Your task to perform on an android device: set default search engine in the chrome app Image 0: 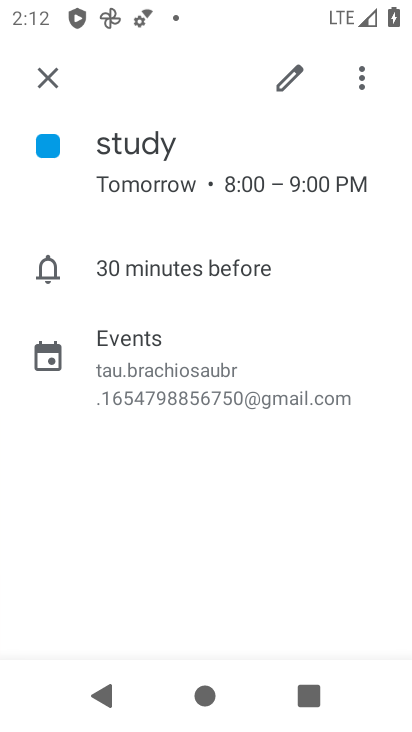
Step 0: press home button
Your task to perform on an android device: set default search engine in the chrome app Image 1: 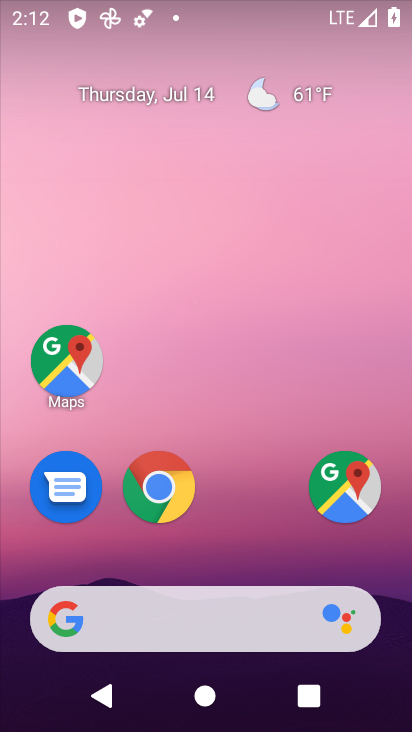
Step 1: drag from (268, 561) to (314, 139)
Your task to perform on an android device: set default search engine in the chrome app Image 2: 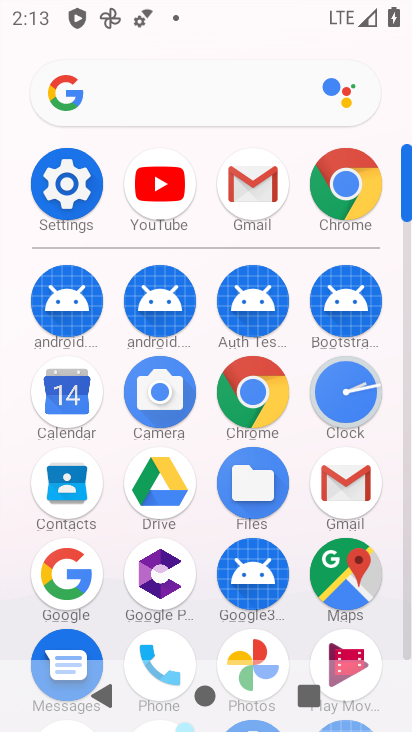
Step 2: click (344, 195)
Your task to perform on an android device: set default search engine in the chrome app Image 3: 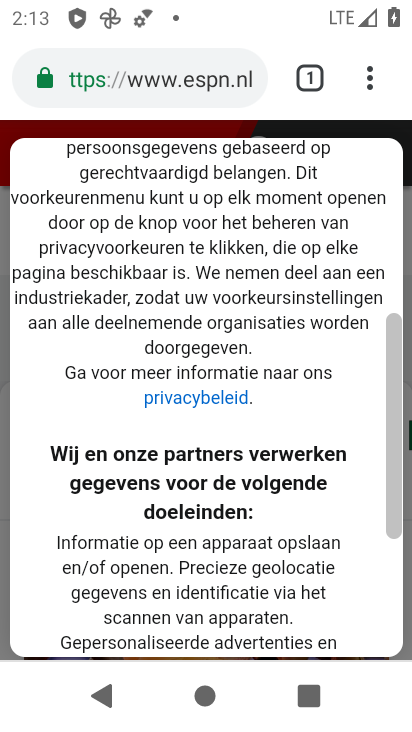
Step 3: click (370, 85)
Your task to perform on an android device: set default search engine in the chrome app Image 4: 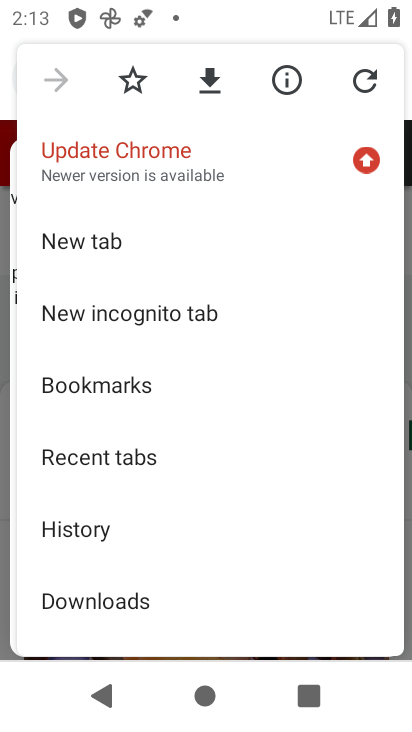
Step 4: drag from (287, 492) to (300, 434)
Your task to perform on an android device: set default search engine in the chrome app Image 5: 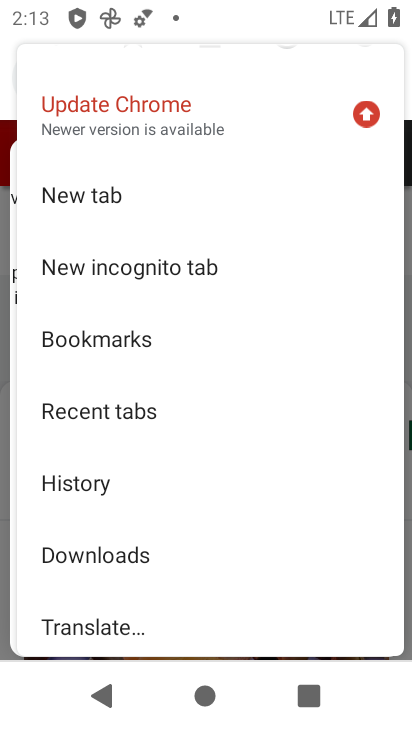
Step 5: drag from (311, 521) to (303, 443)
Your task to perform on an android device: set default search engine in the chrome app Image 6: 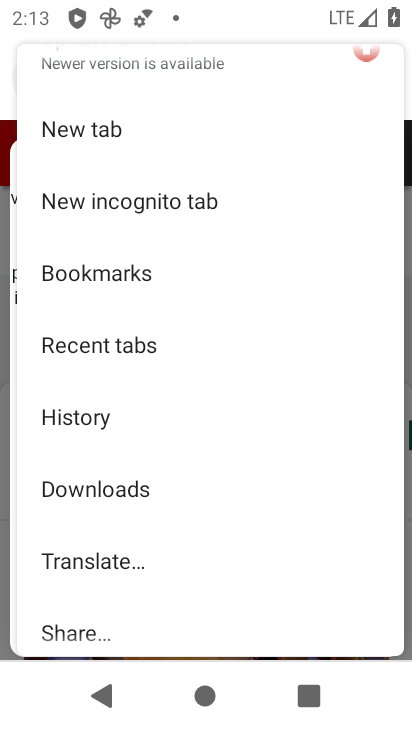
Step 6: drag from (298, 527) to (296, 446)
Your task to perform on an android device: set default search engine in the chrome app Image 7: 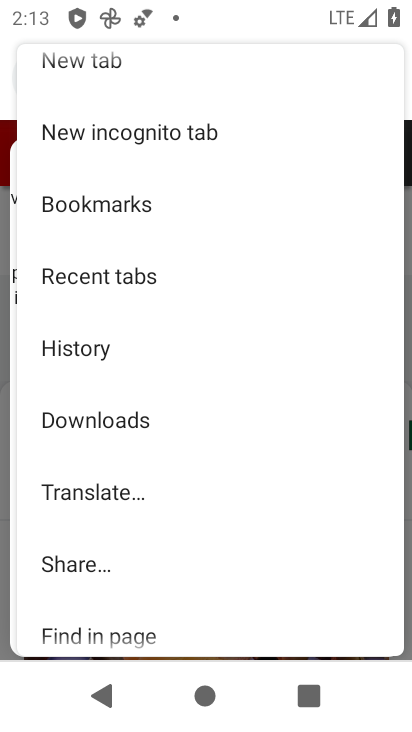
Step 7: drag from (337, 520) to (334, 441)
Your task to perform on an android device: set default search engine in the chrome app Image 8: 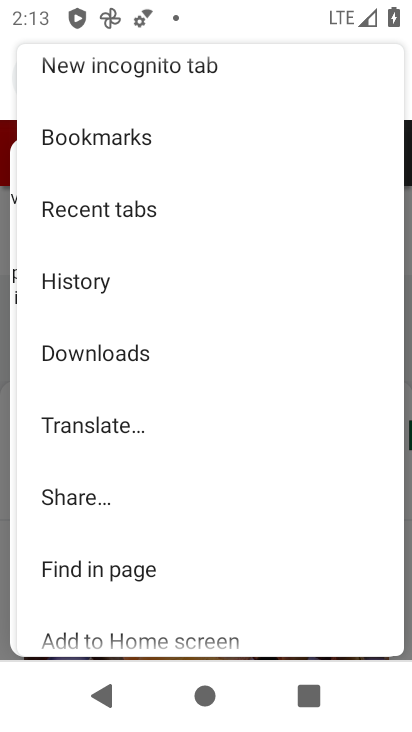
Step 8: drag from (326, 530) to (324, 456)
Your task to perform on an android device: set default search engine in the chrome app Image 9: 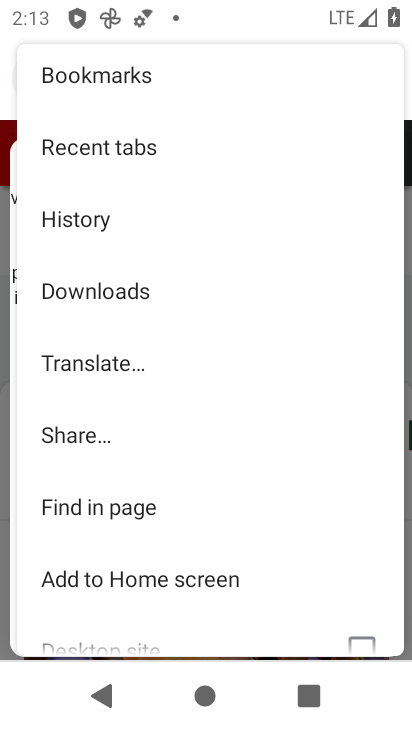
Step 9: drag from (325, 524) to (324, 452)
Your task to perform on an android device: set default search engine in the chrome app Image 10: 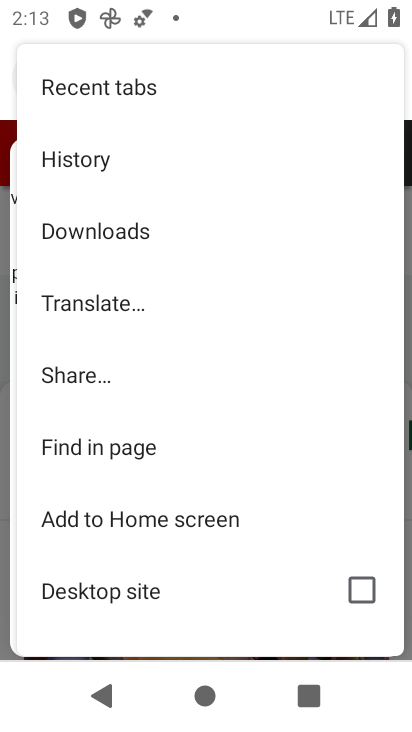
Step 10: drag from (306, 518) to (306, 441)
Your task to perform on an android device: set default search engine in the chrome app Image 11: 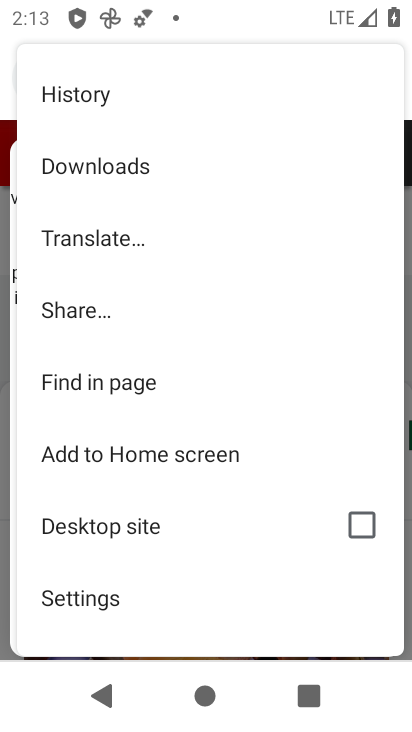
Step 11: drag from (301, 516) to (304, 430)
Your task to perform on an android device: set default search engine in the chrome app Image 12: 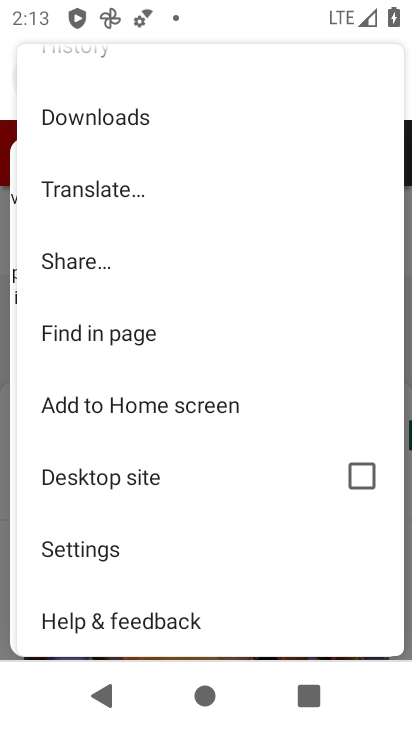
Step 12: click (176, 563)
Your task to perform on an android device: set default search engine in the chrome app Image 13: 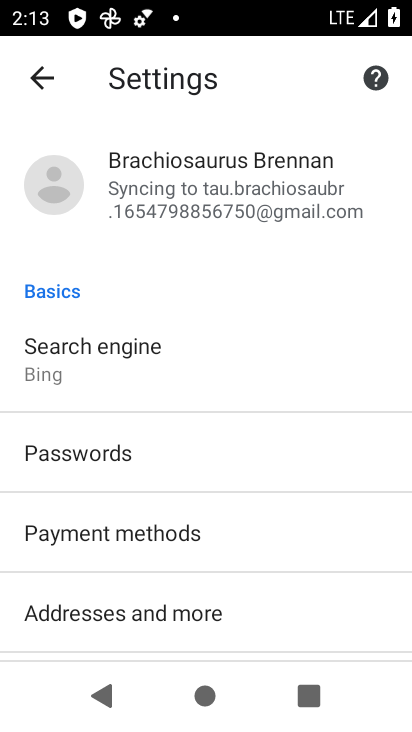
Step 13: click (198, 383)
Your task to perform on an android device: set default search engine in the chrome app Image 14: 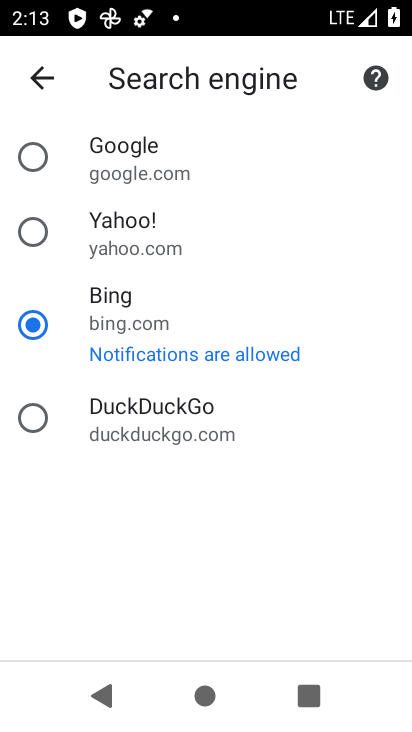
Step 14: click (121, 185)
Your task to perform on an android device: set default search engine in the chrome app Image 15: 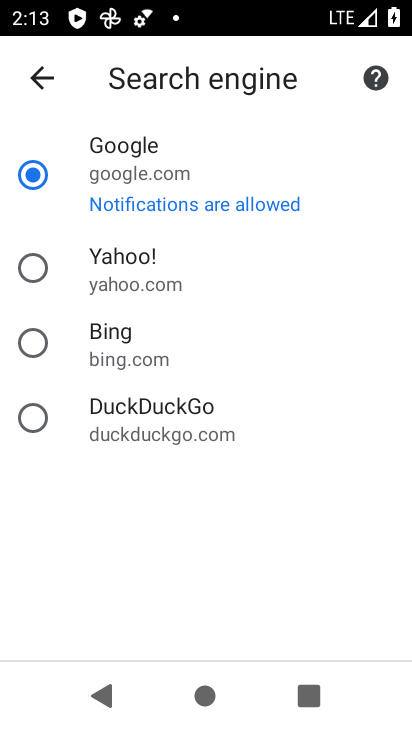
Step 15: task complete